Your task to perform on an android device: turn off notifications in google photos Image 0: 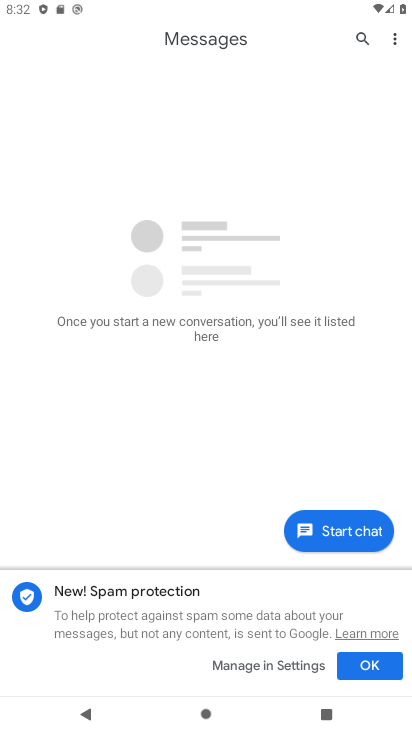
Step 0: press home button
Your task to perform on an android device: turn off notifications in google photos Image 1: 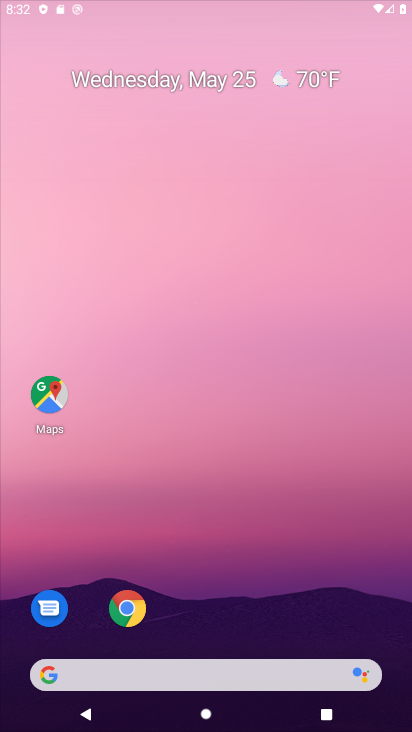
Step 1: drag from (320, 586) to (191, 80)
Your task to perform on an android device: turn off notifications in google photos Image 2: 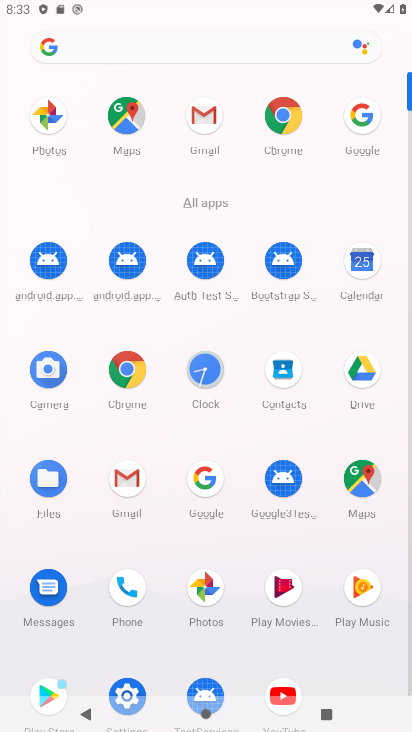
Step 2: click (200, 584)
Your task to perform on an android device: turn off notifications in google photos Image 3: 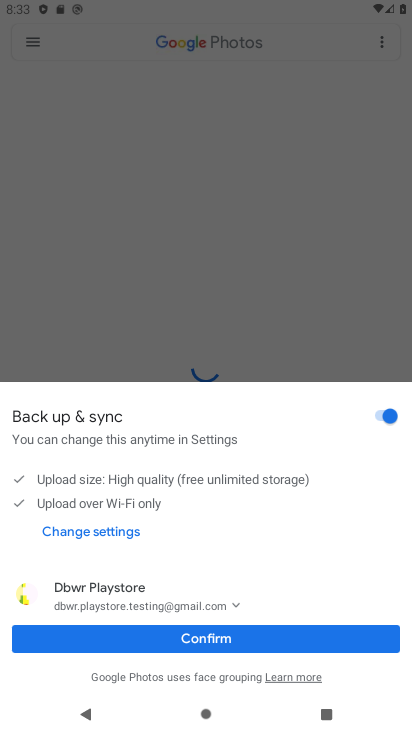
Step 3: click (260, 640)
Your task to perform on an android device: turn off notifications in google photos Image 4: 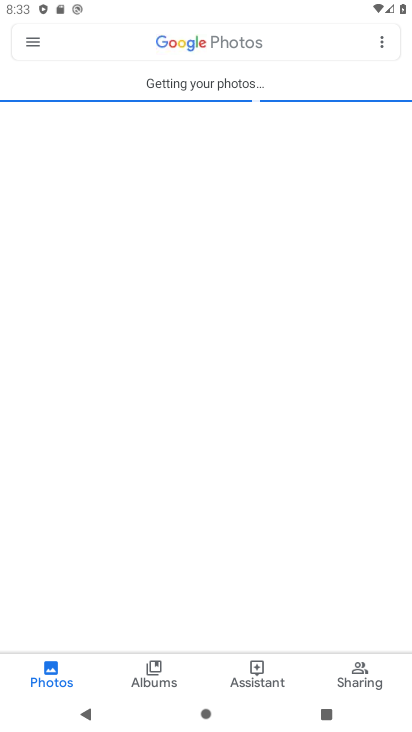
Step 4: click (38, 36)
Your task to perform on an android device: turn off notifications in google photos Image 5: 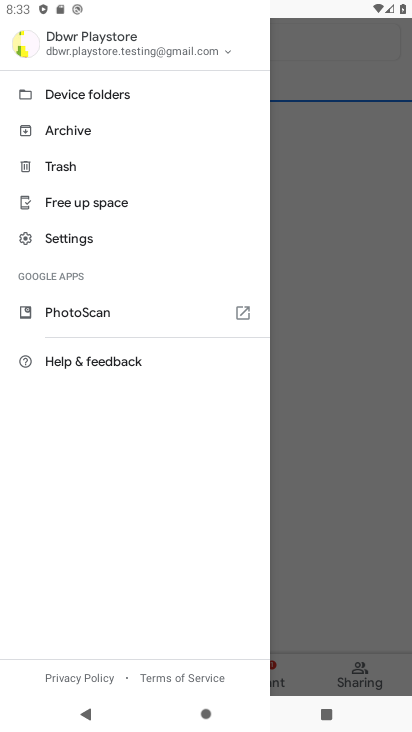
Step 5: click (104, 240)
Your task to perform on an android device: turn off notifications in google photos Image 6: 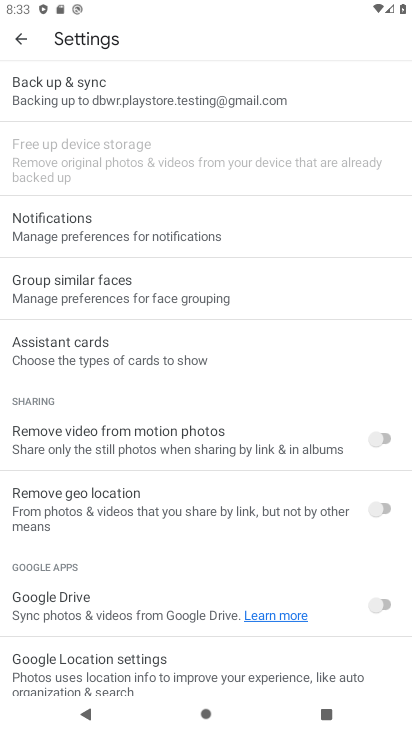
Step 6: click (149, 226)
Your task to perform on an android device: turn off notifications in google photos Image 7: 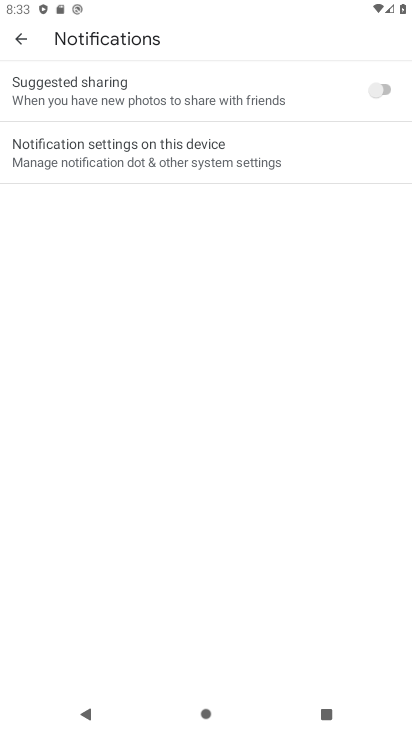
Step 7: task complete